Your task to perform on an android device: check battery use Image 0: 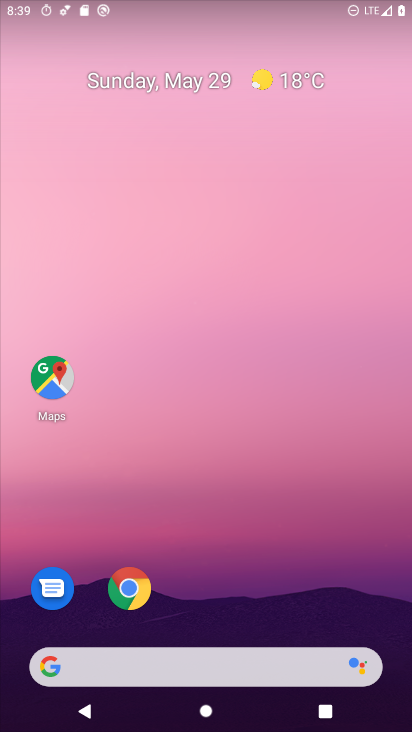
Step 0: drag from (251, 564) to (259, 126)
Your task to perform on an android device: check battery use Image 1: 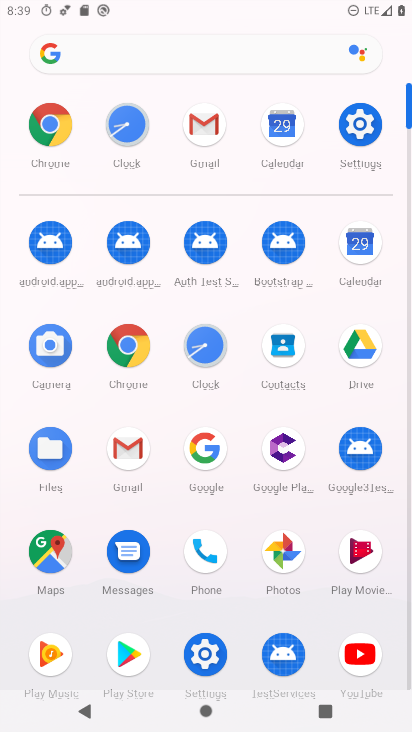
Step 1: click (367, 118)
Your task to perform on an android device: check battery use Image 2: 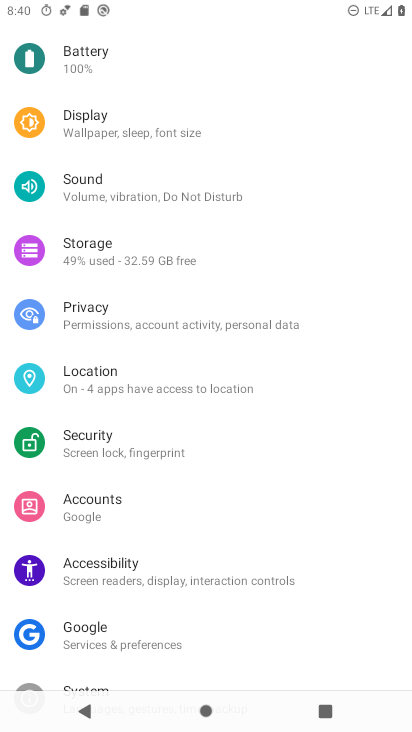
Step 2: click (82, 64)
Your task to perform on an android device: check battery use Image 3: 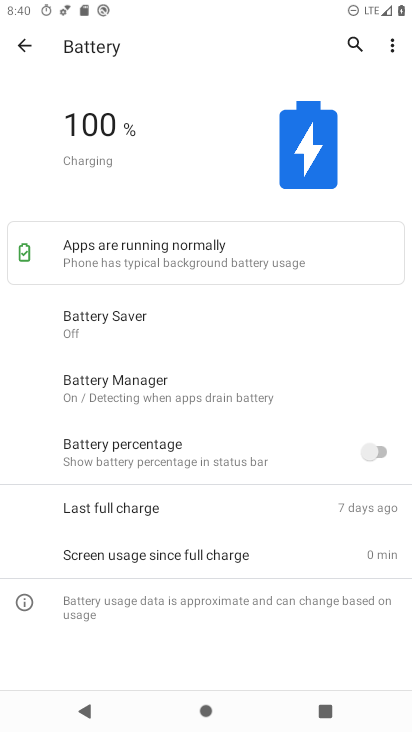
Step 3: click (386, 47)
Your task to perform on an android device: check battery use Image 4: 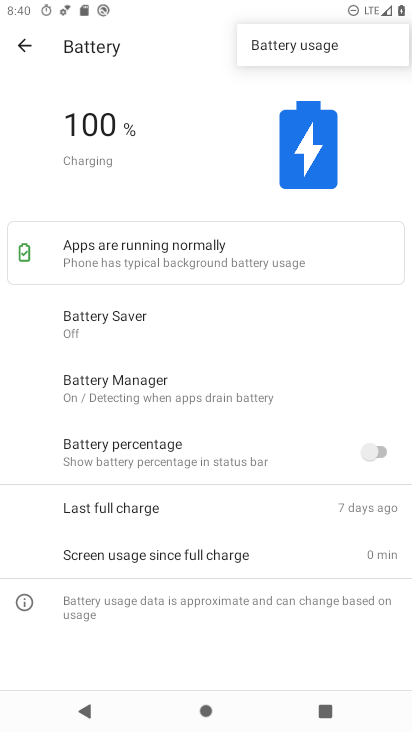
Step 4: click (277, 52)
Your task to perform on an android device: check battery use Image 5: 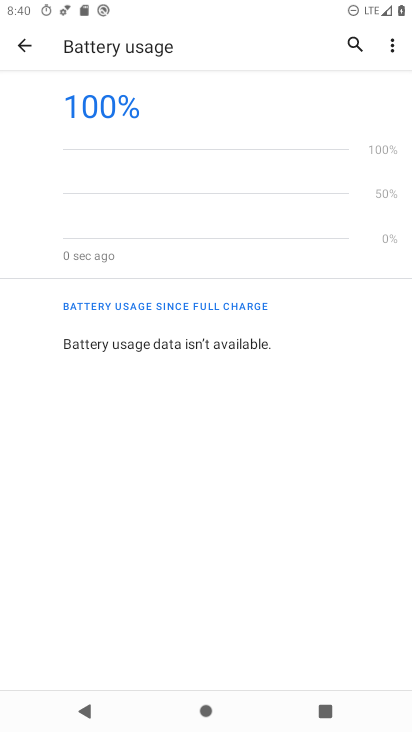
Step 5: task complete